Your task to perform on an android device: Open Android settings Image 0: 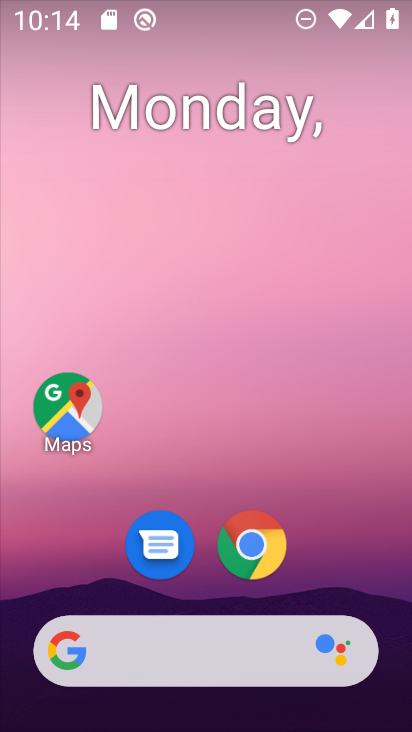
Step 0: drag from (3, 699) to (276, 118)
Your task to perform on an android device: Open Android settings Image 1: 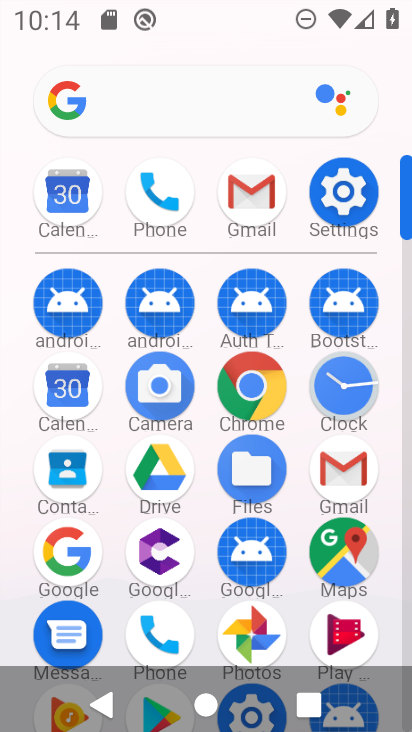
Step 1: click (342, 198)
Your task to perform on an android device: Open Android settings Image 2: 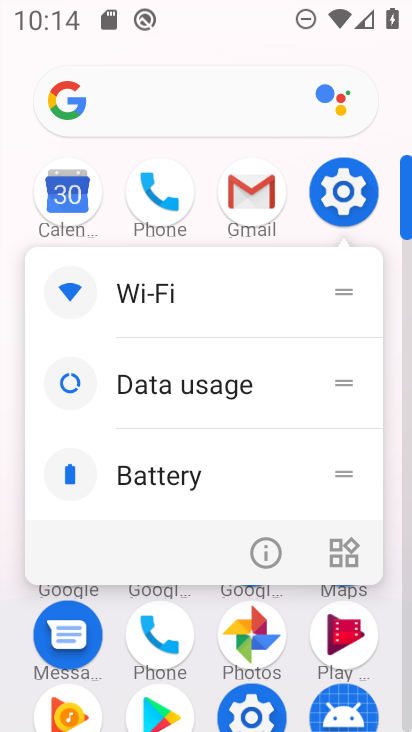
Step 2: click (346, 191)
Your task to perform on an android device: Open Android settings Image 3: 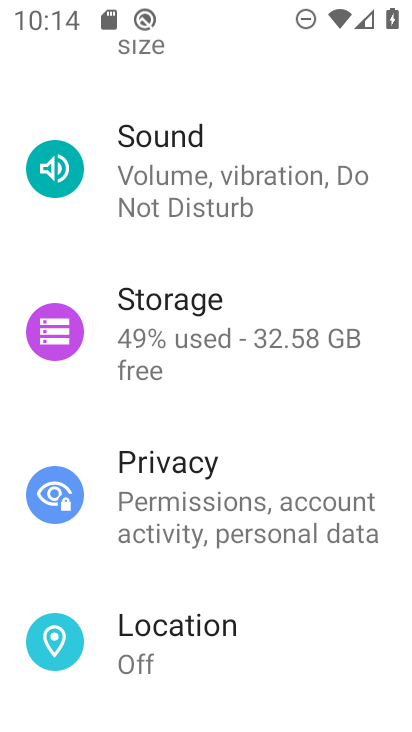
Step 3: drag from (24, 548) to (212, 149)
Your task to perform on an android device: Open Android settings Image 4: 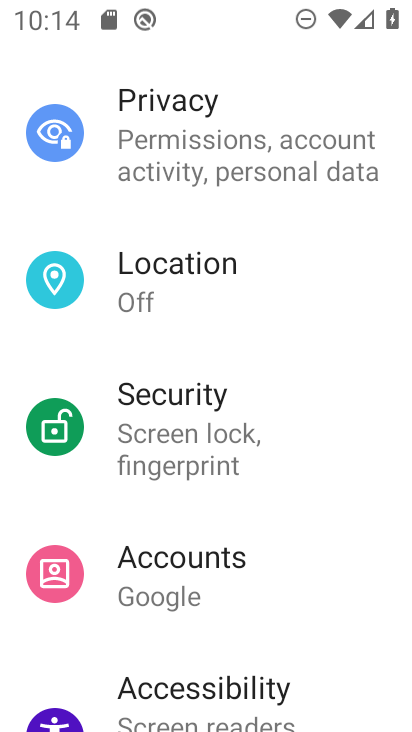
Step 4: drag from (40, 527) to (285, 96)
Your task to perform on an android device: Open Android settings Image 5: 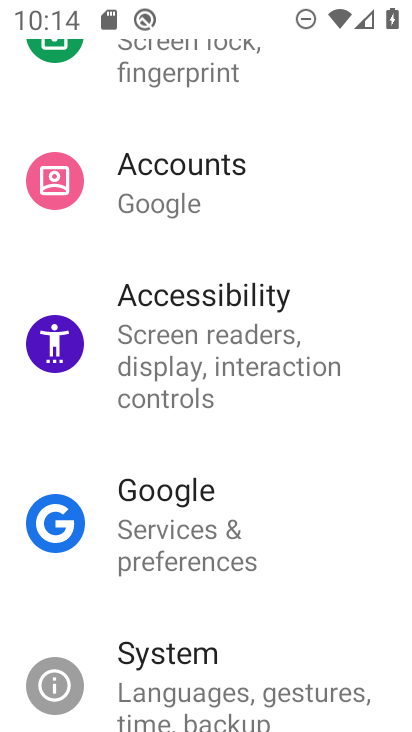
Step 5: drag from (40, 631) to (387, 272)
Your task to perform on an android device: Open Android settings Image 6: 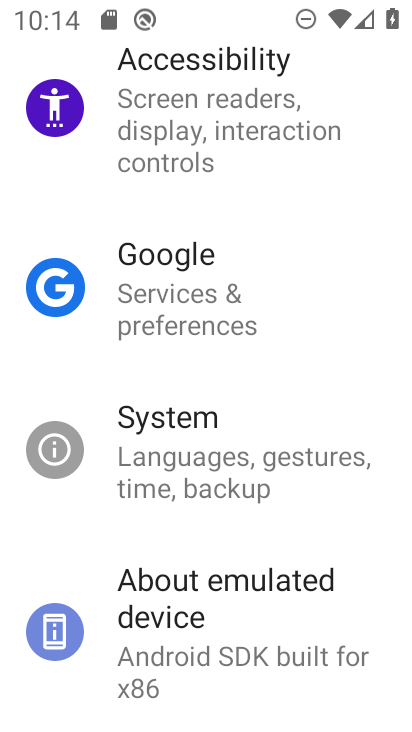
Step 6: drag from (14, 571) to (65, 528)
Your task to perform on an android device: Open Android settings Image 7: 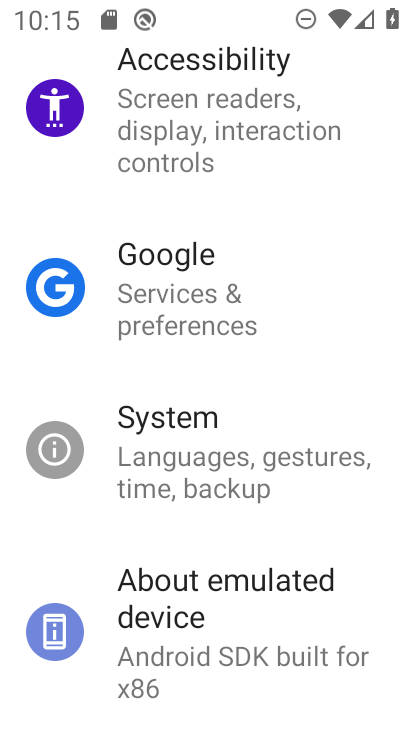
Step 7: click (184, 603)
Your task to perform on an android device: Open Android settings Image 8: 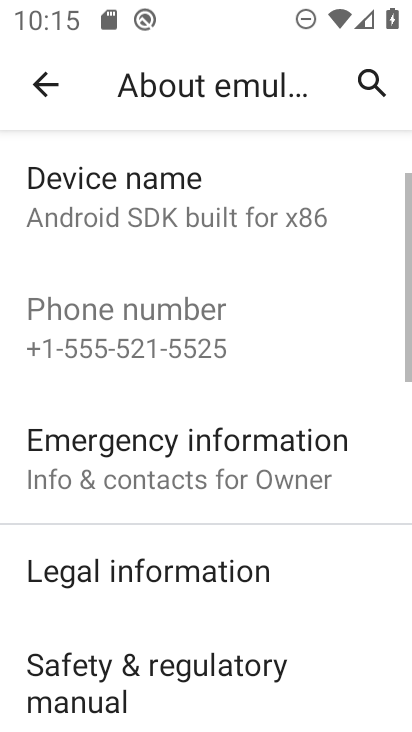
Step 8: drag from (200, 288) to (222, 247)
Your task to perform on an android device: Open Android settings Image 9: 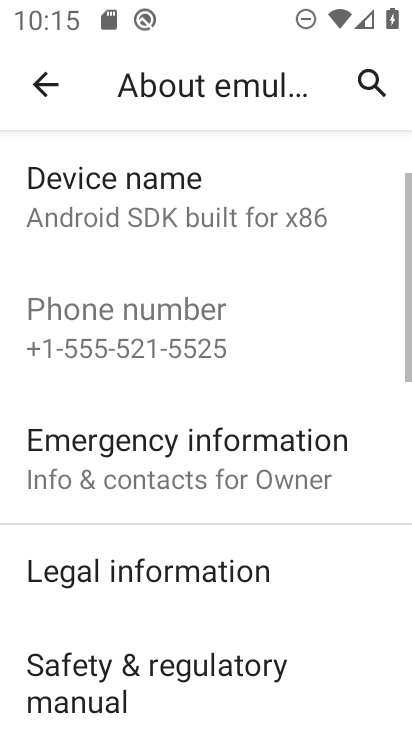
Step 9: drag from (11, 626) to (374, 232)
Your task to perform on an android device: Open Android settings Image 10: 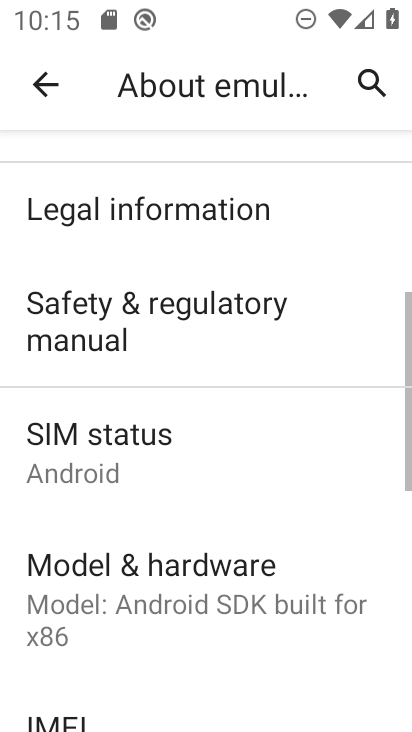
Step 10: drag from (37, 583) to (289, 252)
Your task to perform on an android device: Open Android settings Image 11: 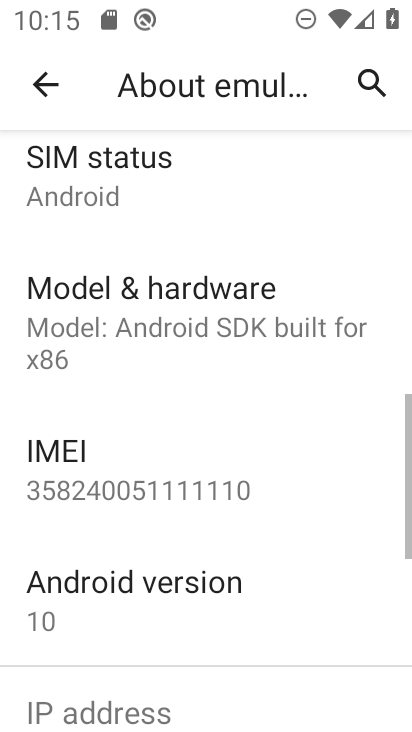
Step 11: drag from (21, 465) to (252, 205)
Your task to perform on an android device: Open Android settings Image 12: 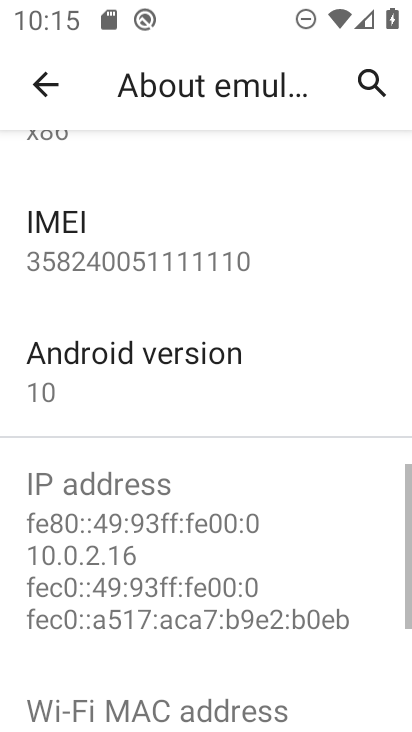
Step 12: click (147, 366)
Your task to perform on an android device: Open Android settings Image 13: 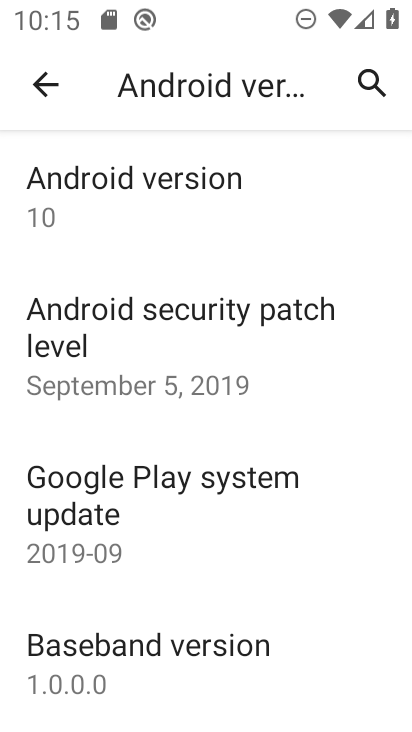
Step 13: task complete